Your task to perform on an android device: Open the phone app and click the voicemail tab. Image 0: 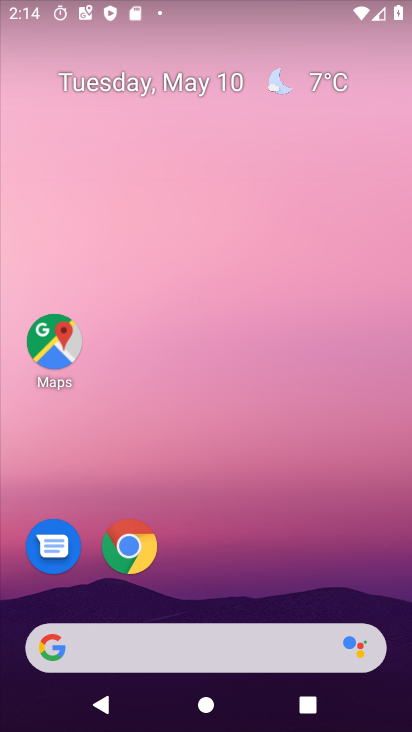
Step 0: drag from (292, 578) to (271, 216)
Your task to perform on an android device: Open the phone app and click the voicemail tab. Image 1: 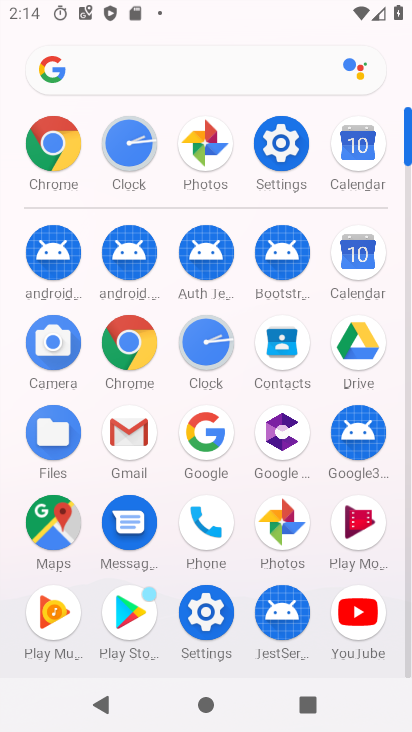
Step 1: click (213, 532)
Your task to perform on an android device: Open the phone app and click the voicemail tab. Image 2: 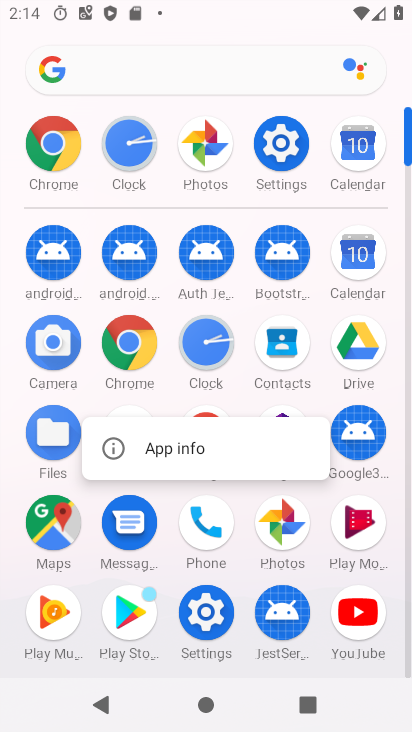
Step 2: click (212, 531)
Your task to perform on an android device: Open the phone app and click the voicemail tab. Image 3: 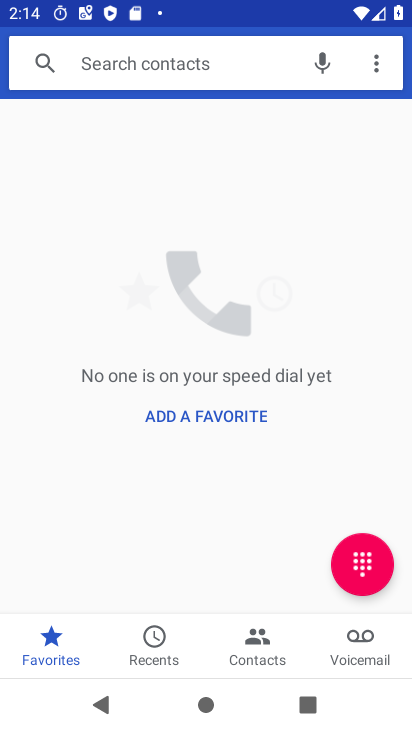
Step 3: click (349, 647)
Your task to perform on an android device: Open the phone app and click the voicemail tab. Image 4: 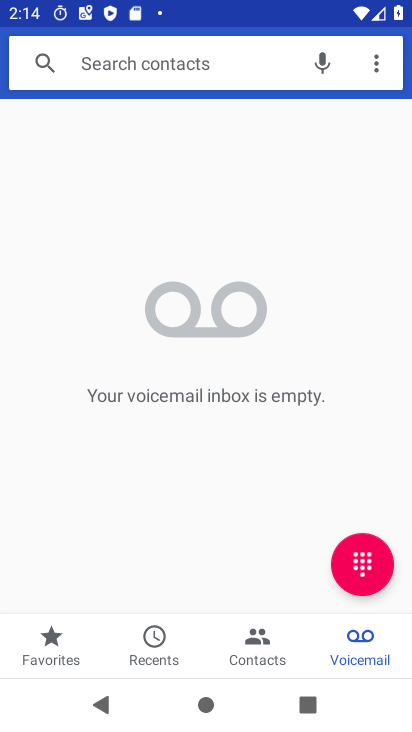
Step 4: task complete